Your task to perform on an android device: turn on javascript in the chrome app Image 0: 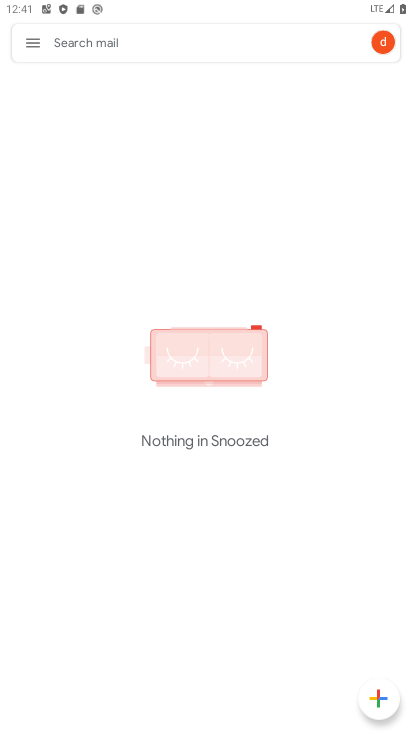
Step 0: press home button
Your task to perform on an android device: turn on javascript in the chrome app Image 1: 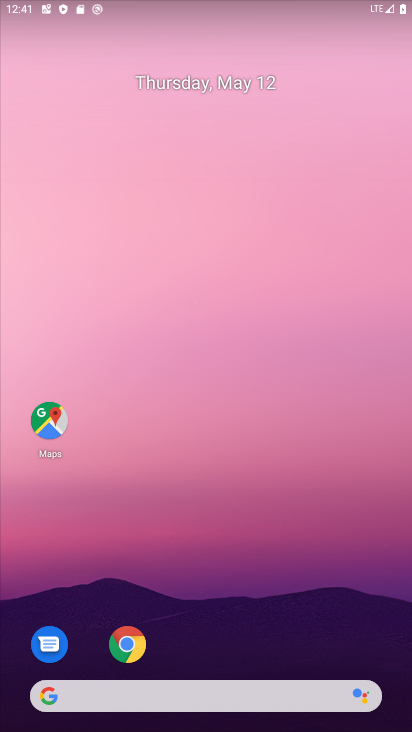
Step 1: drag from (247, 612) to (210, 214)
Your task to perform on an android device: turn on javascript in the chrome app Image 2: 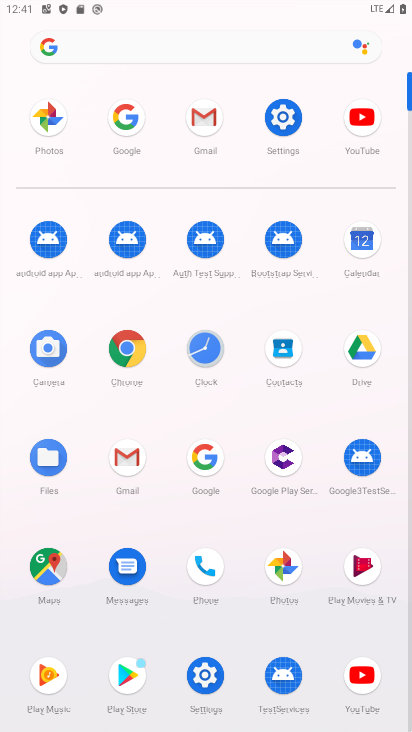
Step 2: click (132, 342)
Your task to perform on an android device: turn on javascript in the chrome app Image 3: 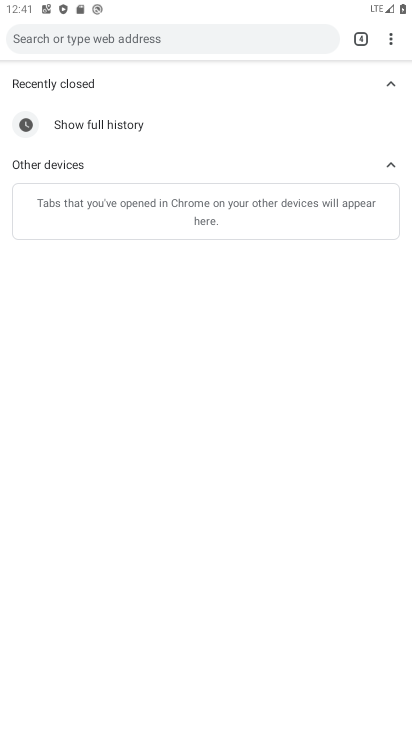
Step 3: click (389, 41)
Your task to perform on an android device: turn on javascript in the chrome app Image 4: 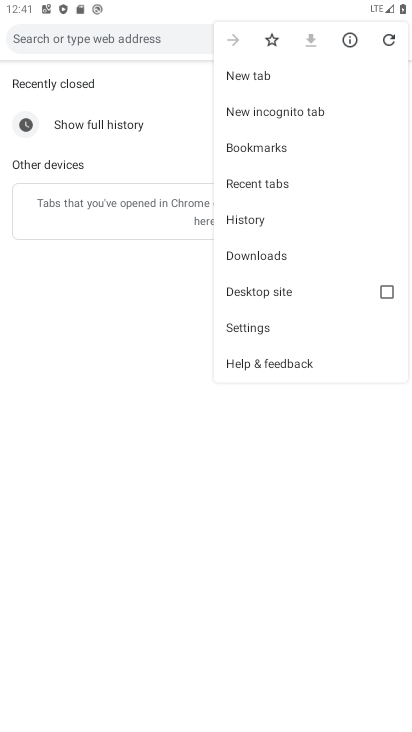
Step 4: click (267, 317)
Your task to perform on an android device: turn on javascript in the chrome app Image 5: 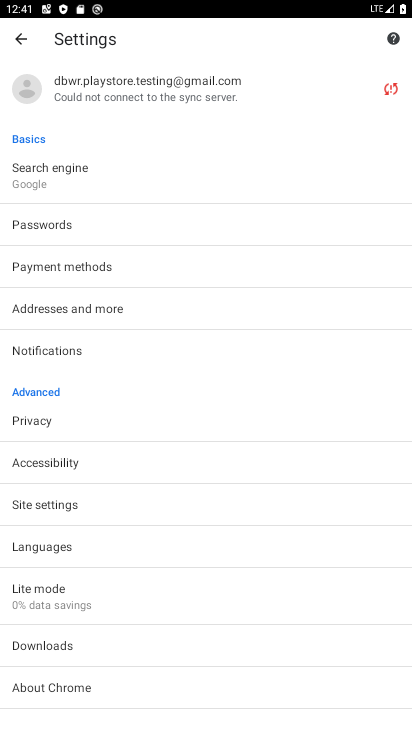
Step 5: click (90, 500)
Your task to perform on an android device: turn on javascript in the chrome app Image 6: 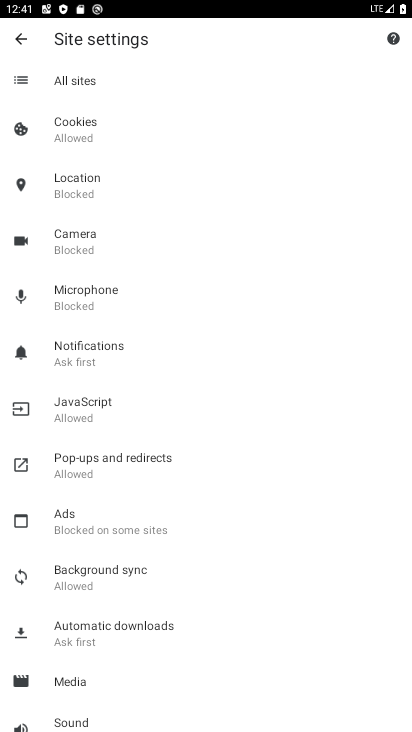
Step 6: click (133, 406)
Your task to perform on an android device: turn on javascript in the chrome app Image 7: 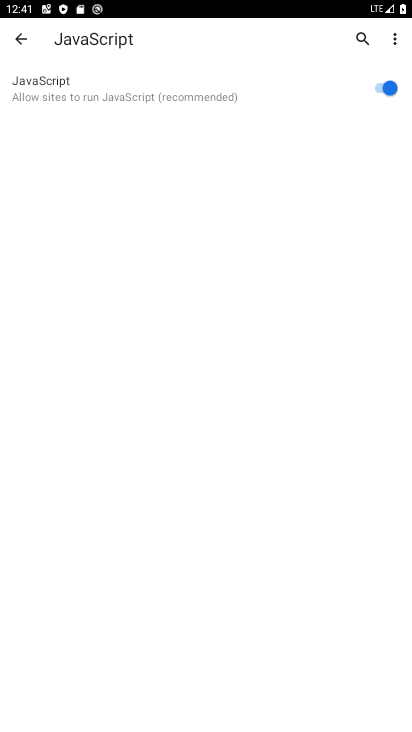
Step 7: task complete